Your task to perform on an android device: Go to internet settings Image 0: 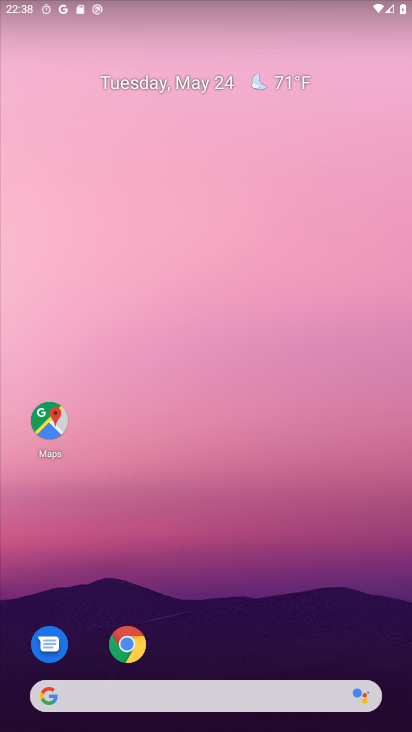
Step 0: drag from (230, 11) to (229, 91)
Your task to perform on an android device: Go to internet settings Image 1: 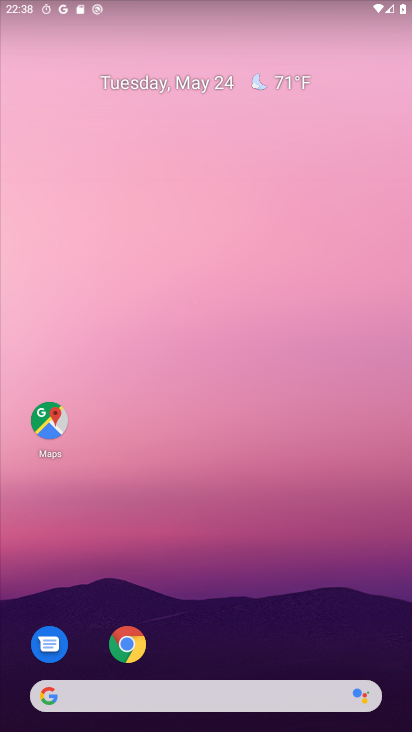
Step 1: drag from (197, 571) to (145, 96)
Your task to perform on an android device: Go to internet settings Image 2: 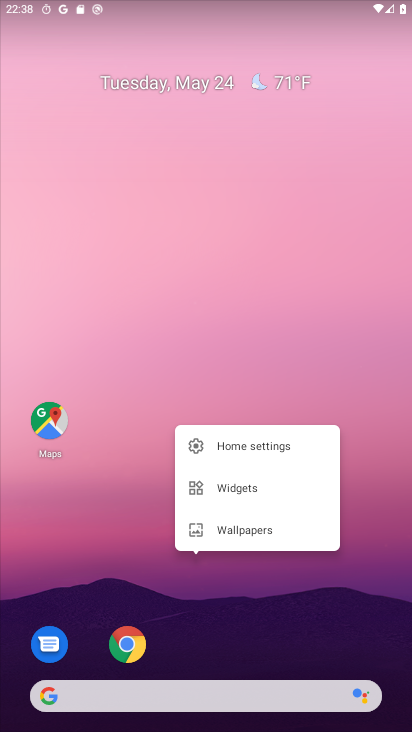
Step 2: click (145, 143)
Your task to perform on an android device: Go to internet settings Image 3: 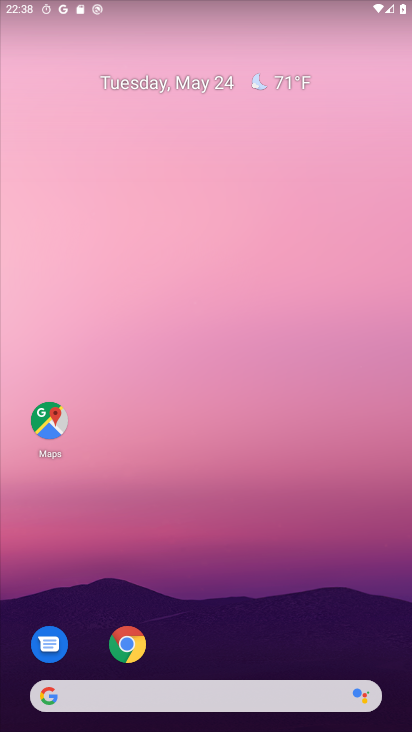
Step 3: drag from (246, 601) to (212, 76)
Your task to perform on an android device: Go to internet settings Image 4: 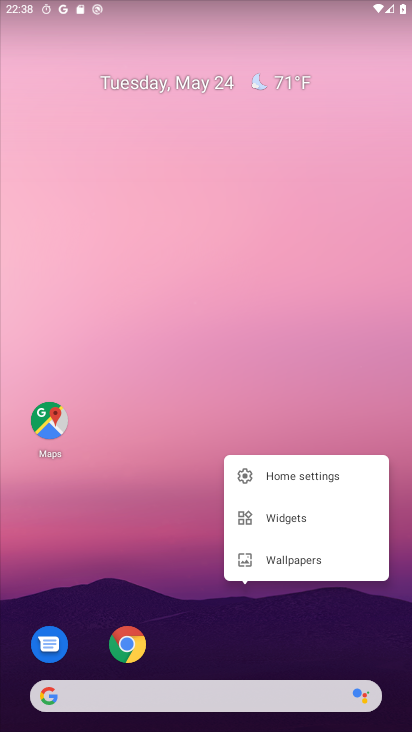
Step 4: click (211, 336)
Your task to perform on an android device: Go to internet settings Image 5: 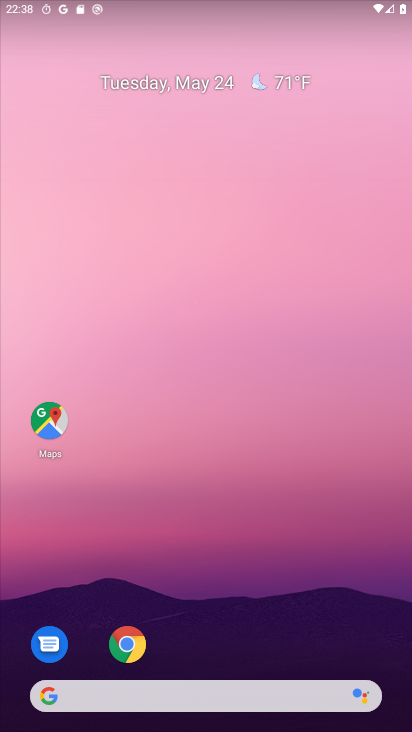
Step 5: drag from (232, 651) to (194, 88)
Your task to perform on an android device: Go to internet settings Image 6: 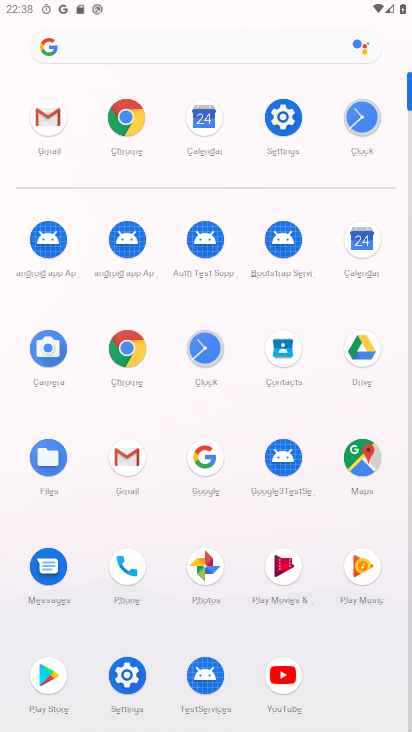
Step 6: click (286, 116)
Your task to perform on an android device: Go to internet settings Image 7: 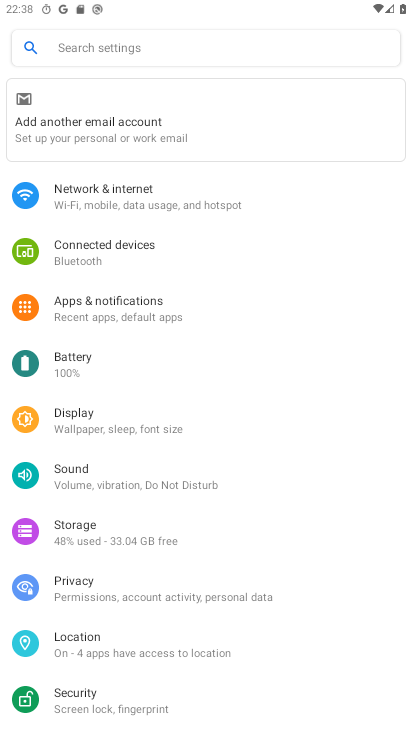
Step 7: click (81, 185)
Your task to perform on an android device: Go to internet settings Image 8: 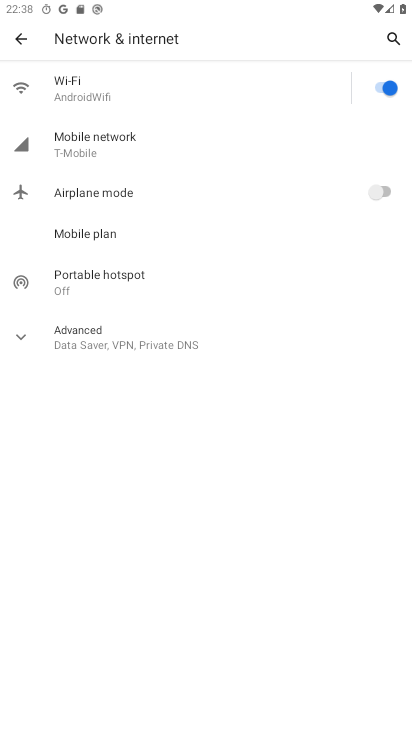
Step 8: task complete